Your task to perform on an android device: Open Google Chrome and open the bookmarks view Image 0: 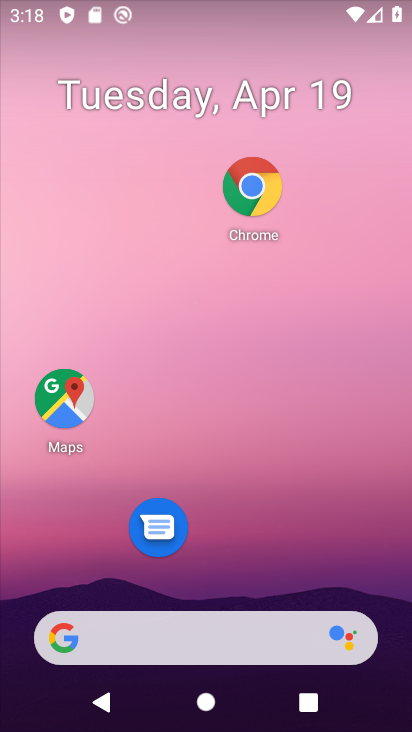
Step 0: drag from (202, 700) to (267, 332)
Your task to perform on an android device: Open Google Chrome and open the bookmarks view Image 1: 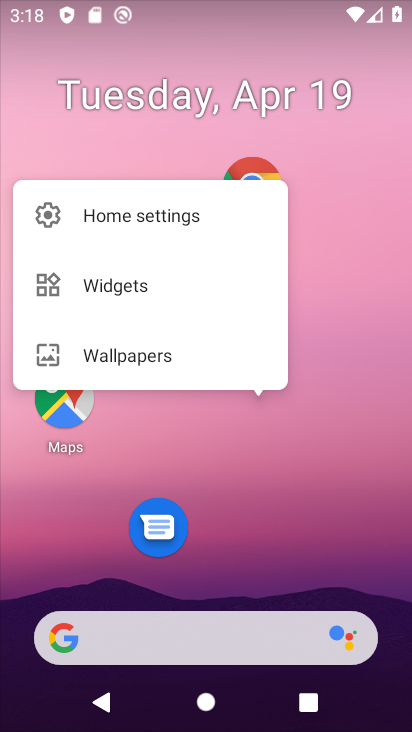
Step 1: click (273, 450)
Your task to perform on an android device: Open Google Chrome and open the bookmarks view Image 2: 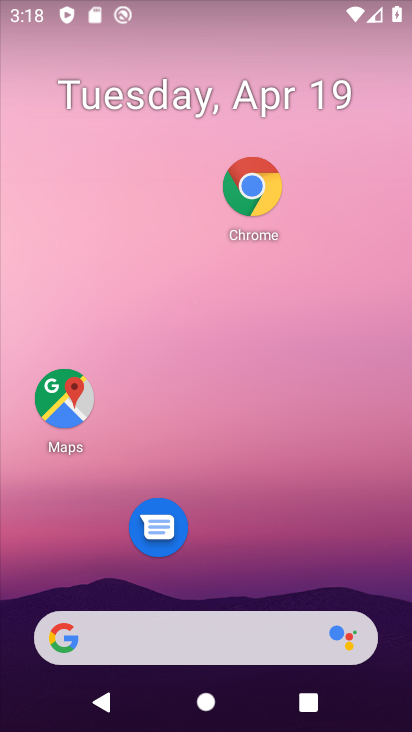
Step 2: drag from (221, 560) to (281, 104)
Your task to perform on an android device: Open Google Chrome and open the bookmarks view Image 3: 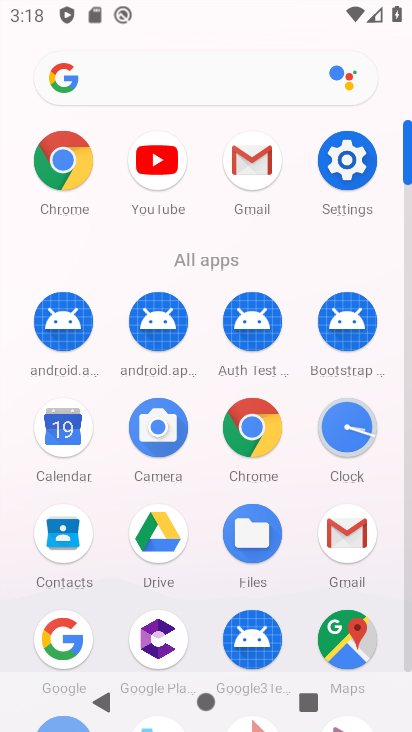
Step 3: click (260, 426)
Your task to perform on an android device: Open Google Chrome and open the bookmarks view Image 4: 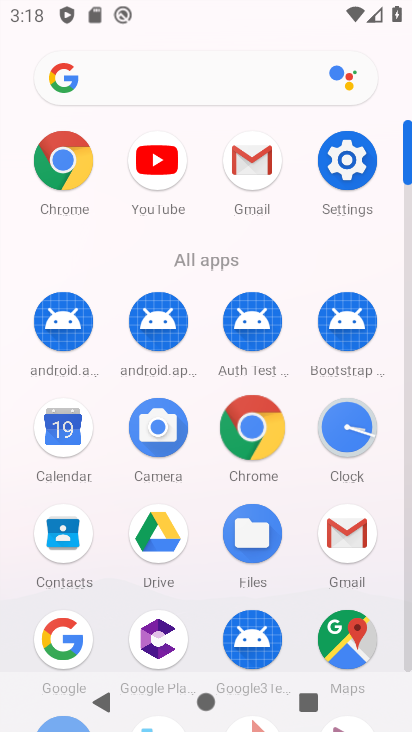
Step 4: click (258, 428)
Your task to perform on an android device: Open Google Chrome and open the bookmarks view Image 5: 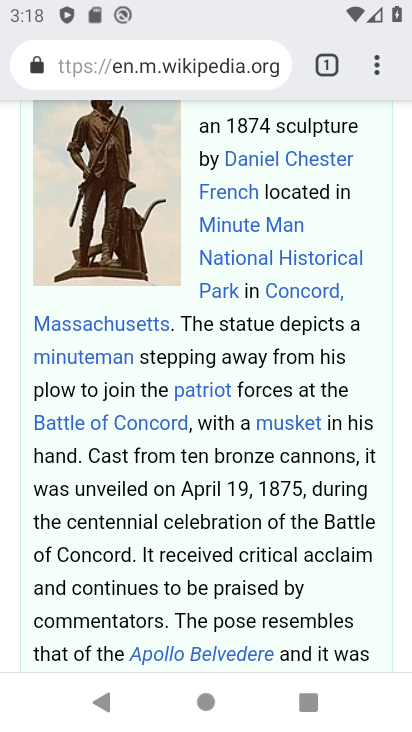
Step 5: click (376, 61)
Your task to perform on an android device: Open Google Chrome and open the bookmarks view Image 6: 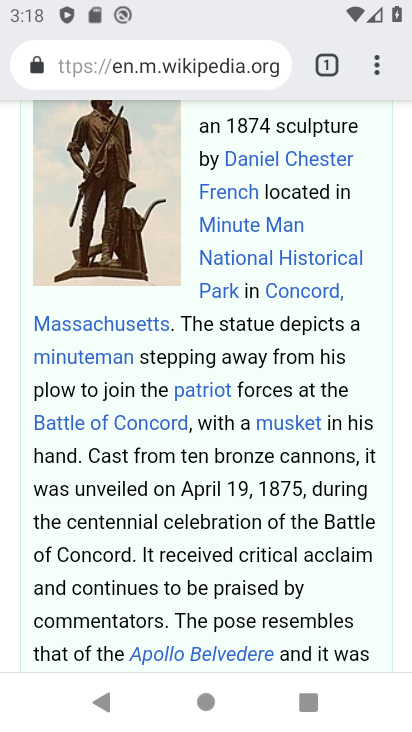
Step 6: click (378, 68)
Your task to perform on an android device: Open Google Chrome and open the bookmarks view Image 7: 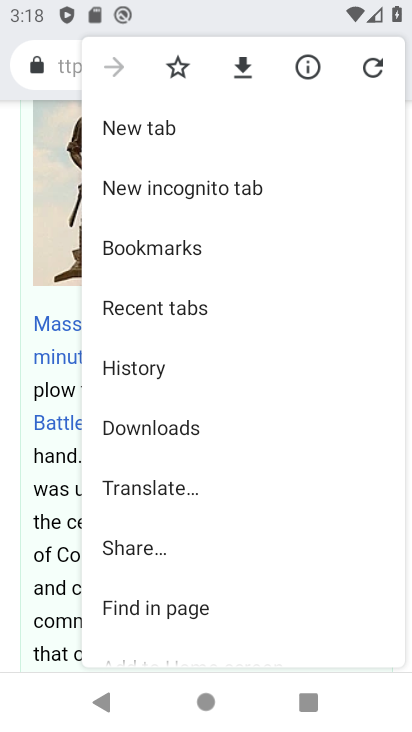
Step 7: click (200, 246)
Your task to perform on an android device: Open Google Chrome and open the bookmarks view Image 8: 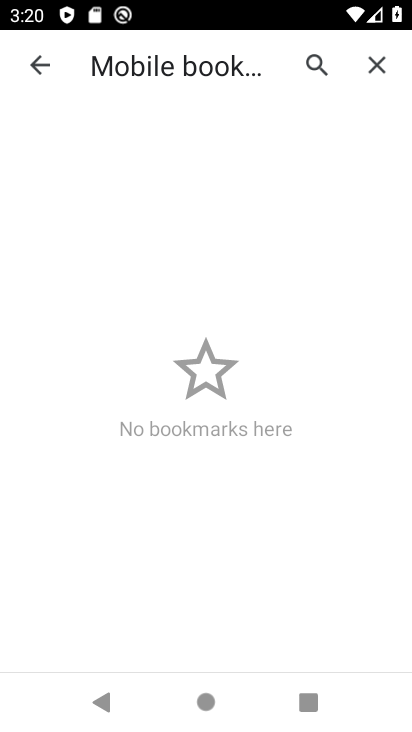
Step 8: task complete